Your task to perform on an android device: Search for dell xps on ebay.com, select the first entry, add it to the cart, then select checkout. Image 0: 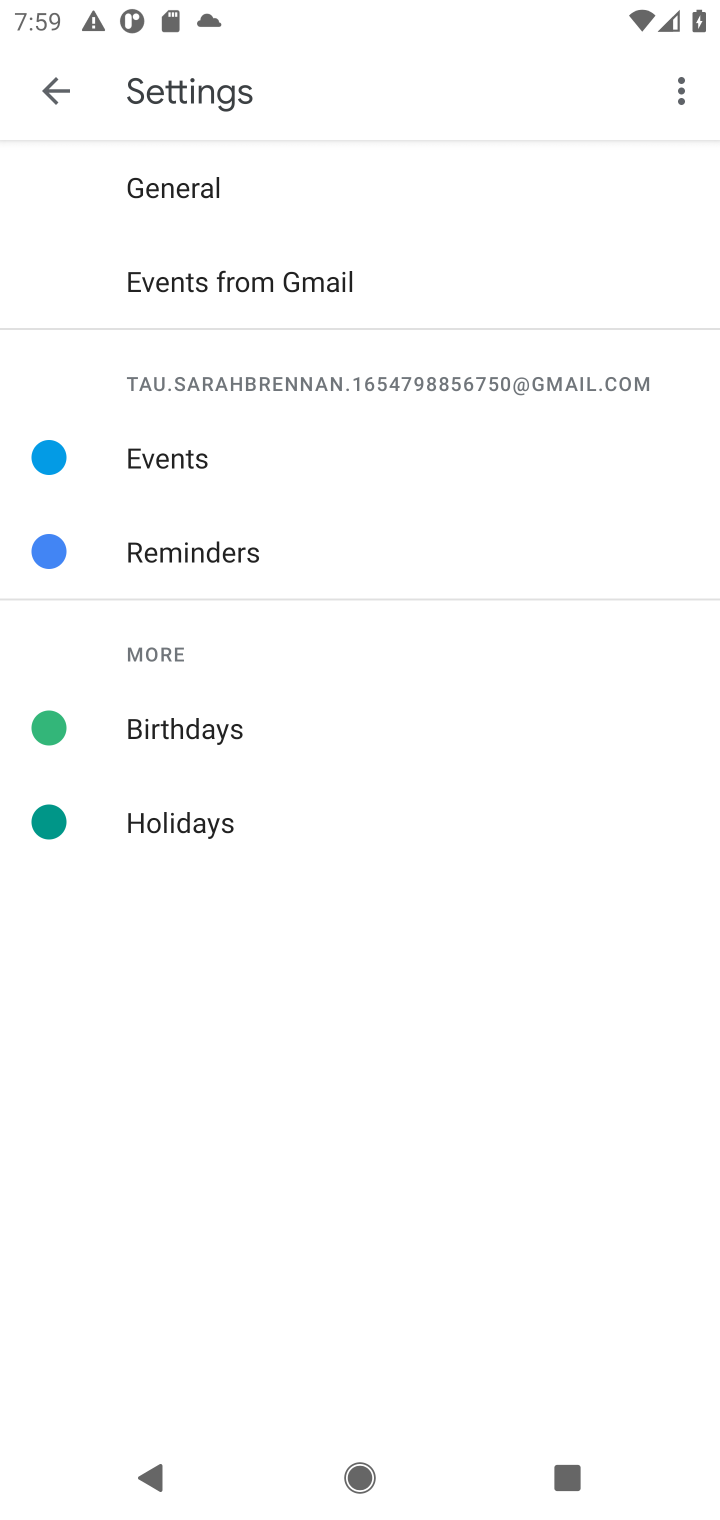
Step 0: press home button
Your task to perform on an android device: Search for dell xps on ebay.com, select the first entry, add it to the cart, then select checkout. Image 1: 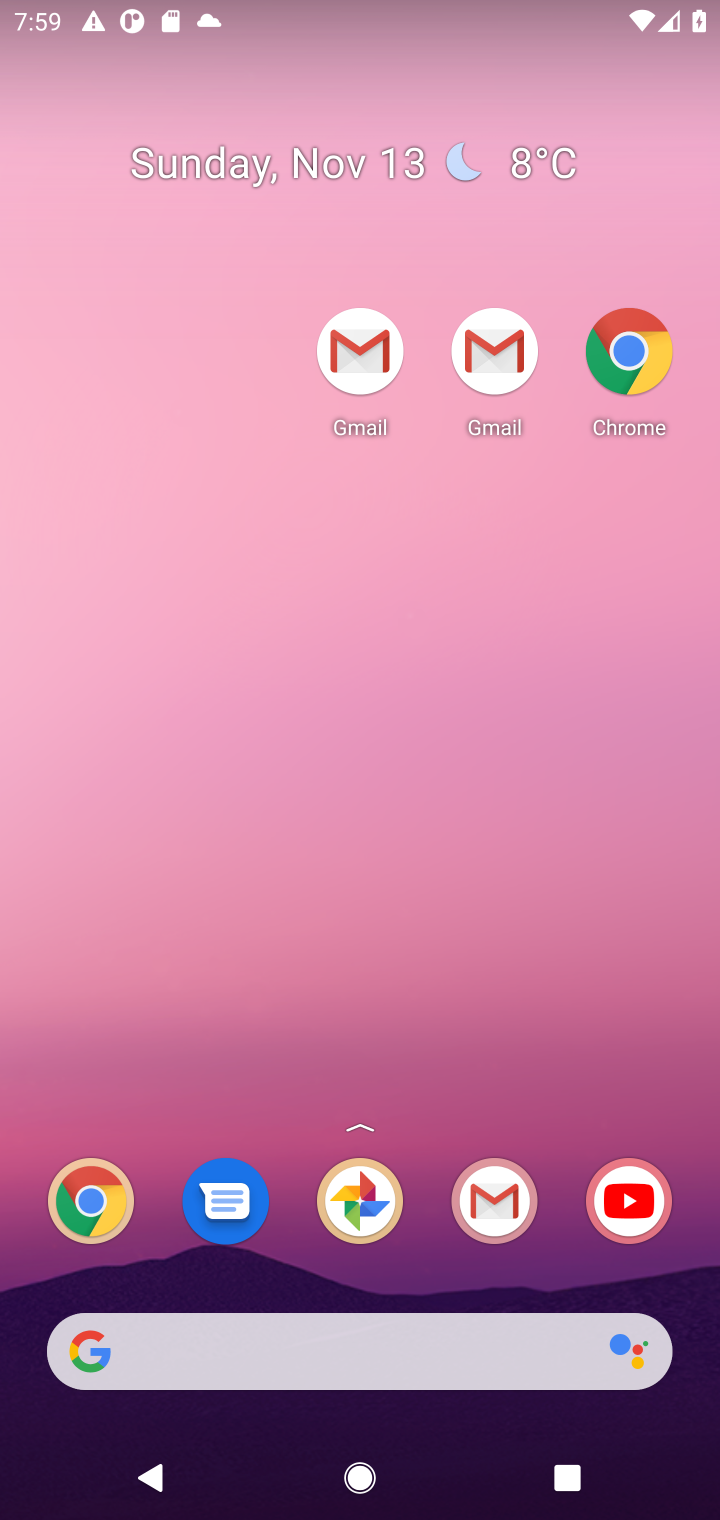
Step 1: drag from (413, 1157) to (168, 604)
Your task to perform on an android device: Search for dell xps on ebay.com, select the first entry, add it to the cart, then select checkout. Image 2: 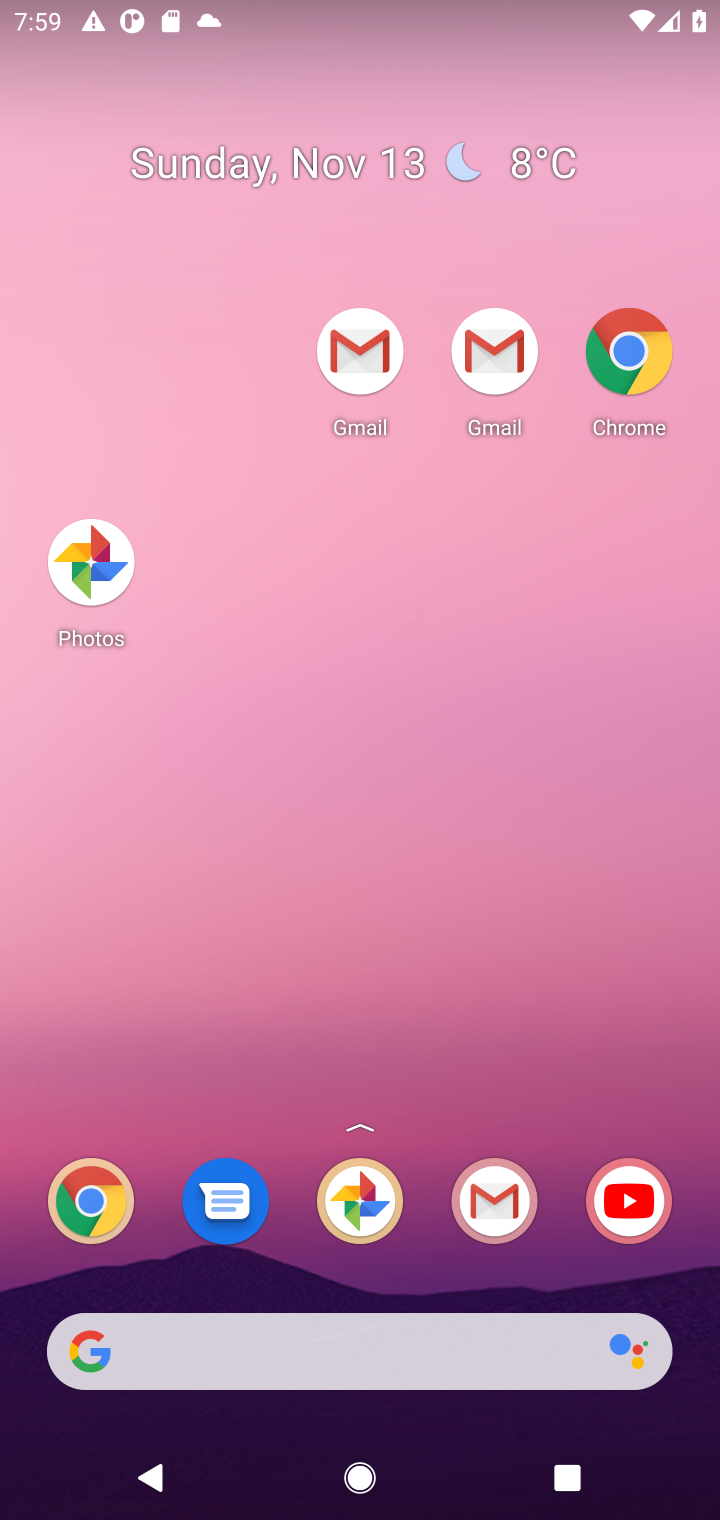
Step 2: drag from (463, 1112) to (253, 57)
Your task to perform on an android device: Search for dell xps on ebay.com, select the first entry, add it to the cart, then select checkout. Image 3: 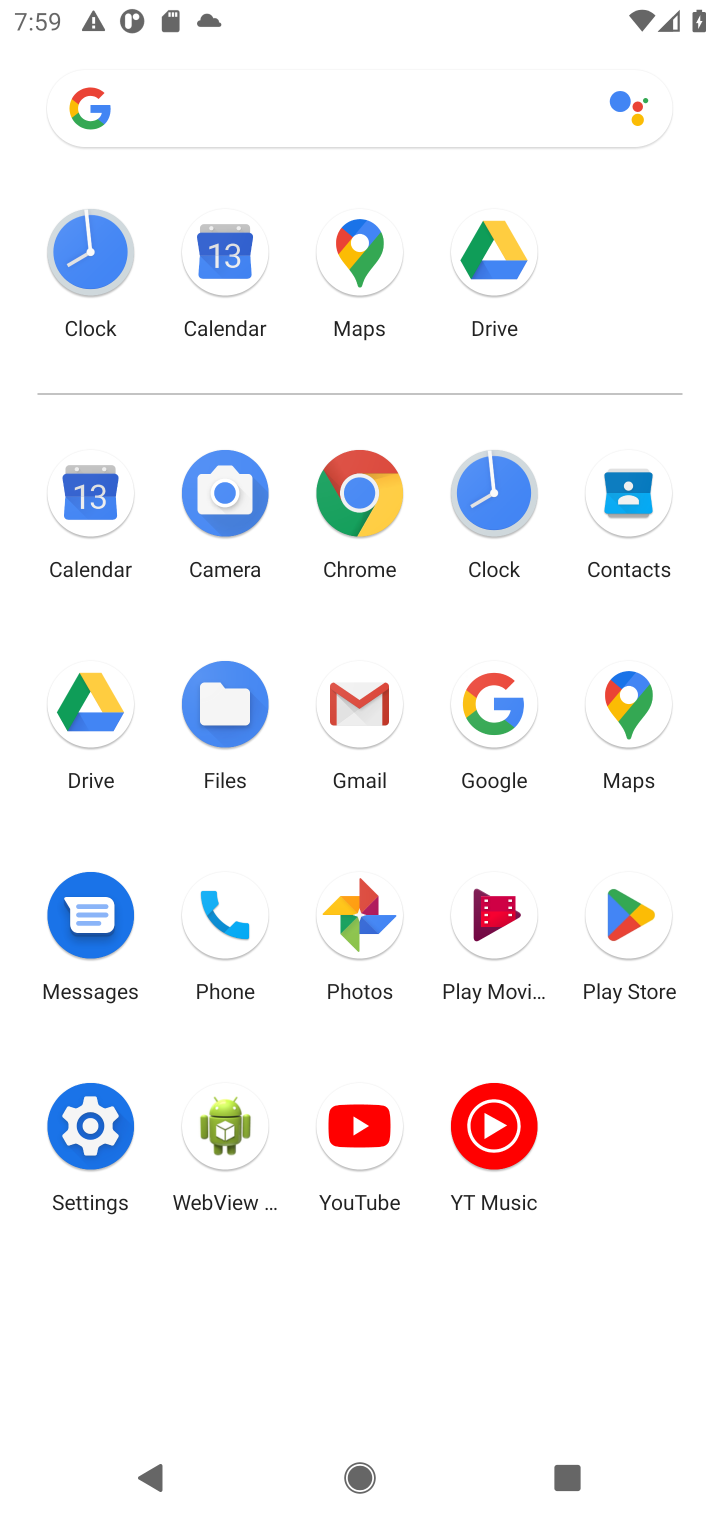
Step 3: click (352, 494)
Your task to perform on an android device: Search for dell xps on ebay.com, select the first entry, add it to the cart, then select checkout. Image 4: 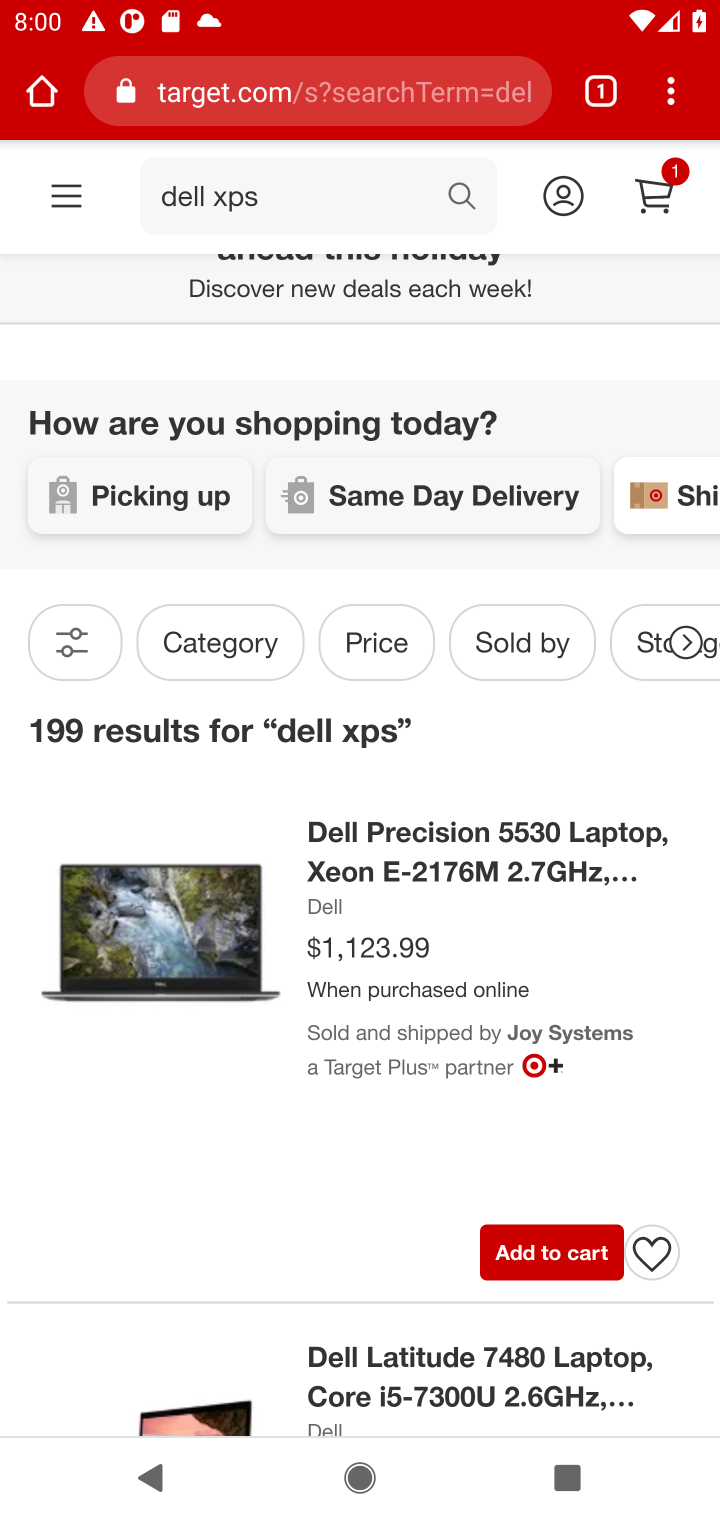
Step 4: click (416, 80)
Your task to perform on an android device: Search for dell xps on ebay.com, select the first entry, add it to the cart, then select checkout. Image 5: 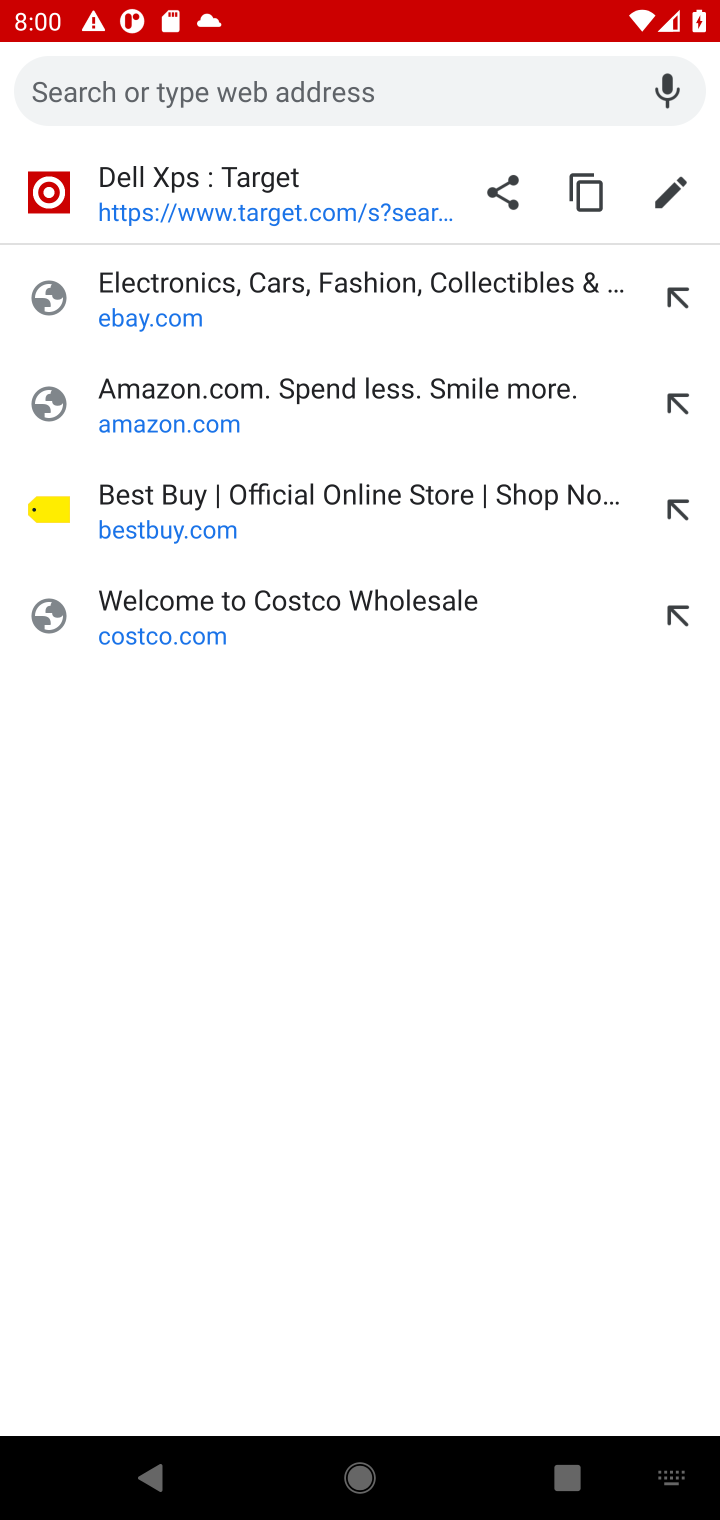
Step 5: type "ebay.com"
Your task to perform on an android device: Search for dell xps on ebay.com, select the first entry, add it to the cart, then select checkout. Image 6: 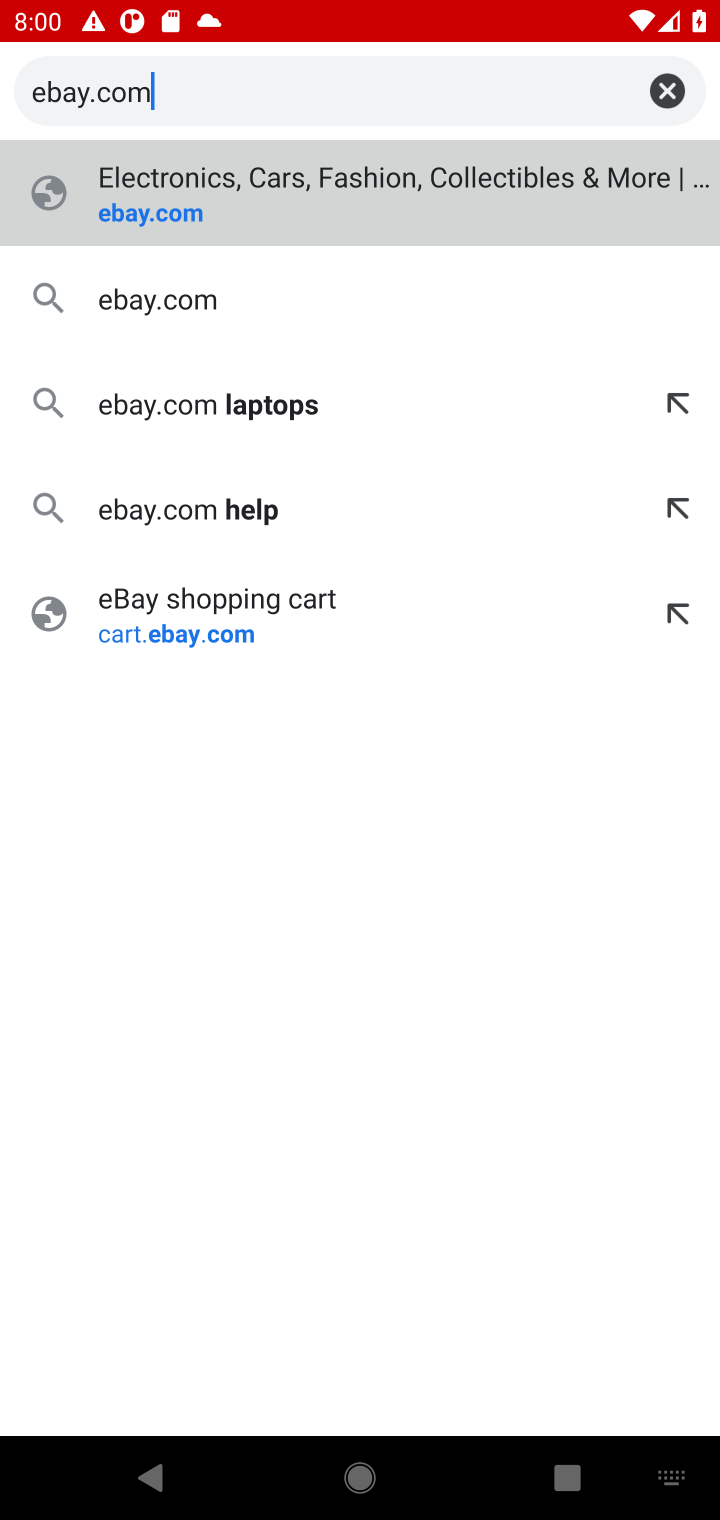
Step 6: press enter
Your task to perform on an android device: Search for dell xps on ebay.com, select the first entry, add it to the cart, then select checkout. Image 7: 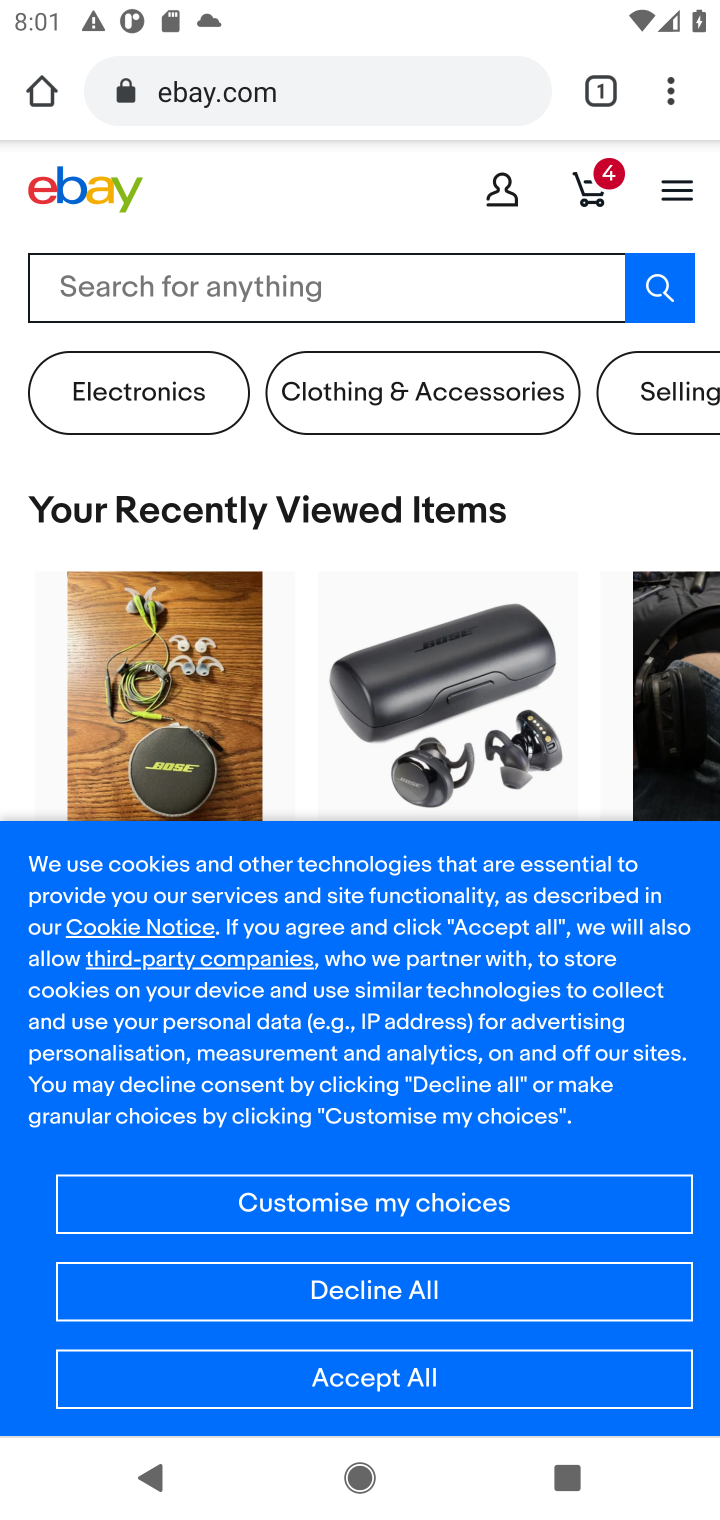
Step 7: click (254, 279)
Your task to perform on an android device: Search for dell xps on ebay.com, select the first entry, add it to the cart, then select checkout. Image 8: 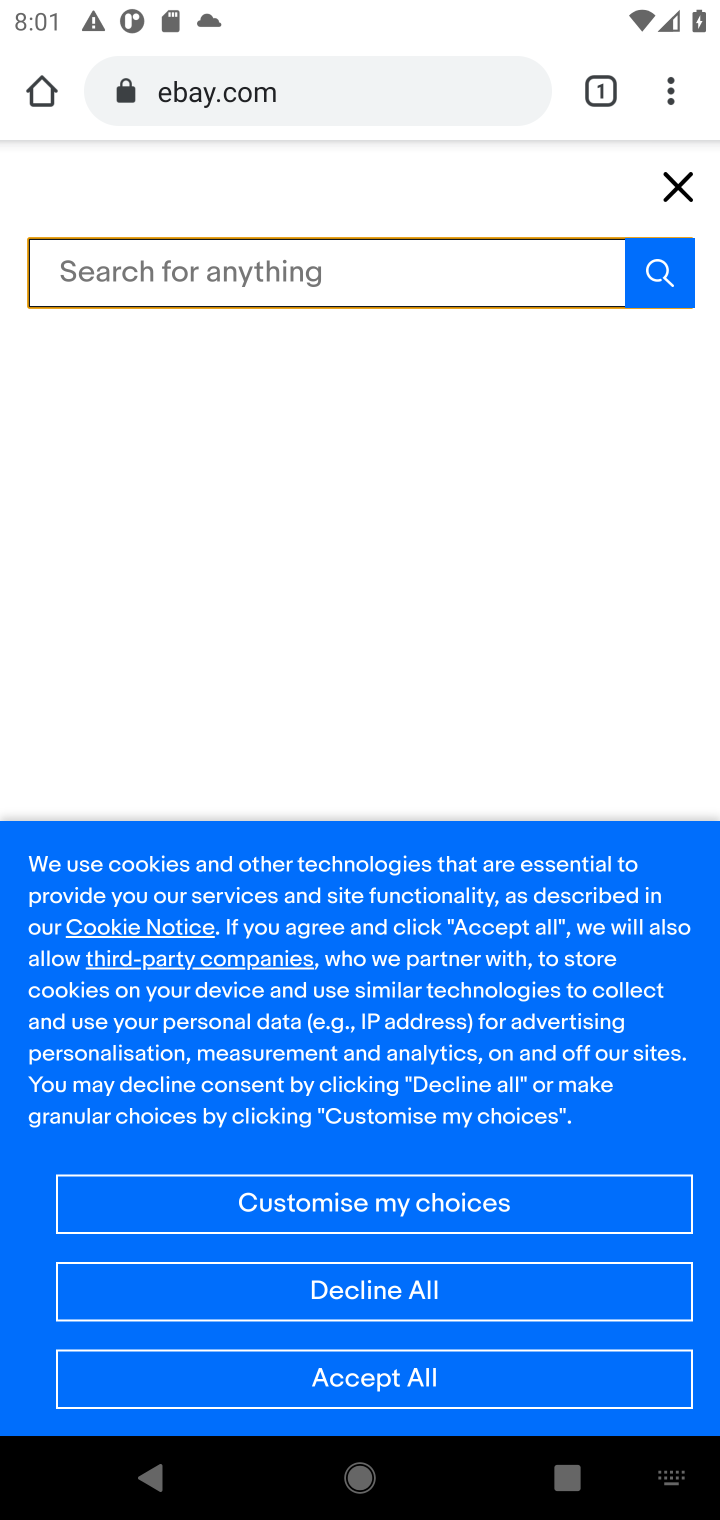
Step 8: type "dell xps"
Your task to perform on an android device: Search for dell xps on ebay.com, select the first entry, add it to the cart, then select checkout. Image 9: 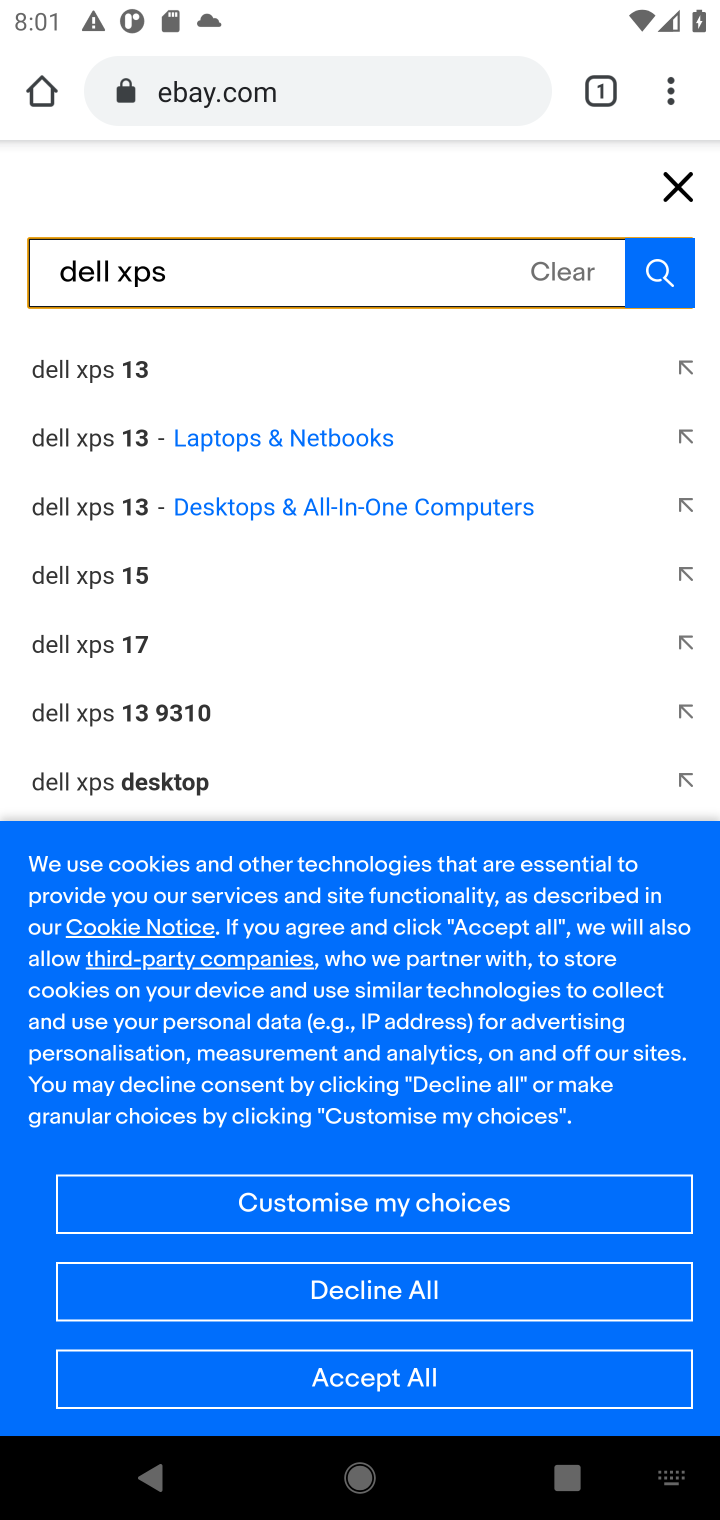
Step 9: press enter
Your task to perform on an android device: Search for dell xps on ebay.com, select the first entry, add it to the cart, then select checkout. Image 10: 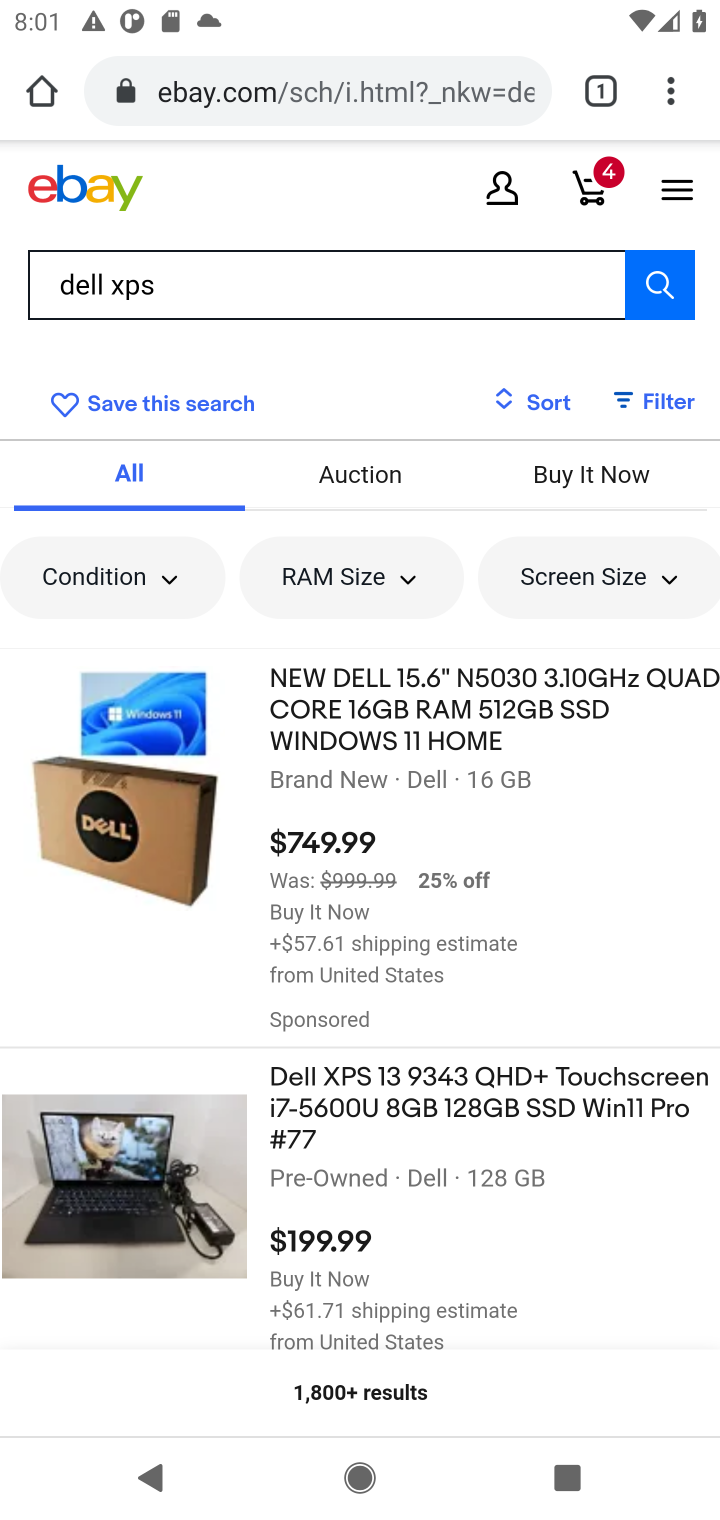
Step 10: click (334, 1082)
Your task to perform on an android device: Search for dell xps on ebay.com, select the first entry, add it to the cart, then select checkout. Image 11: 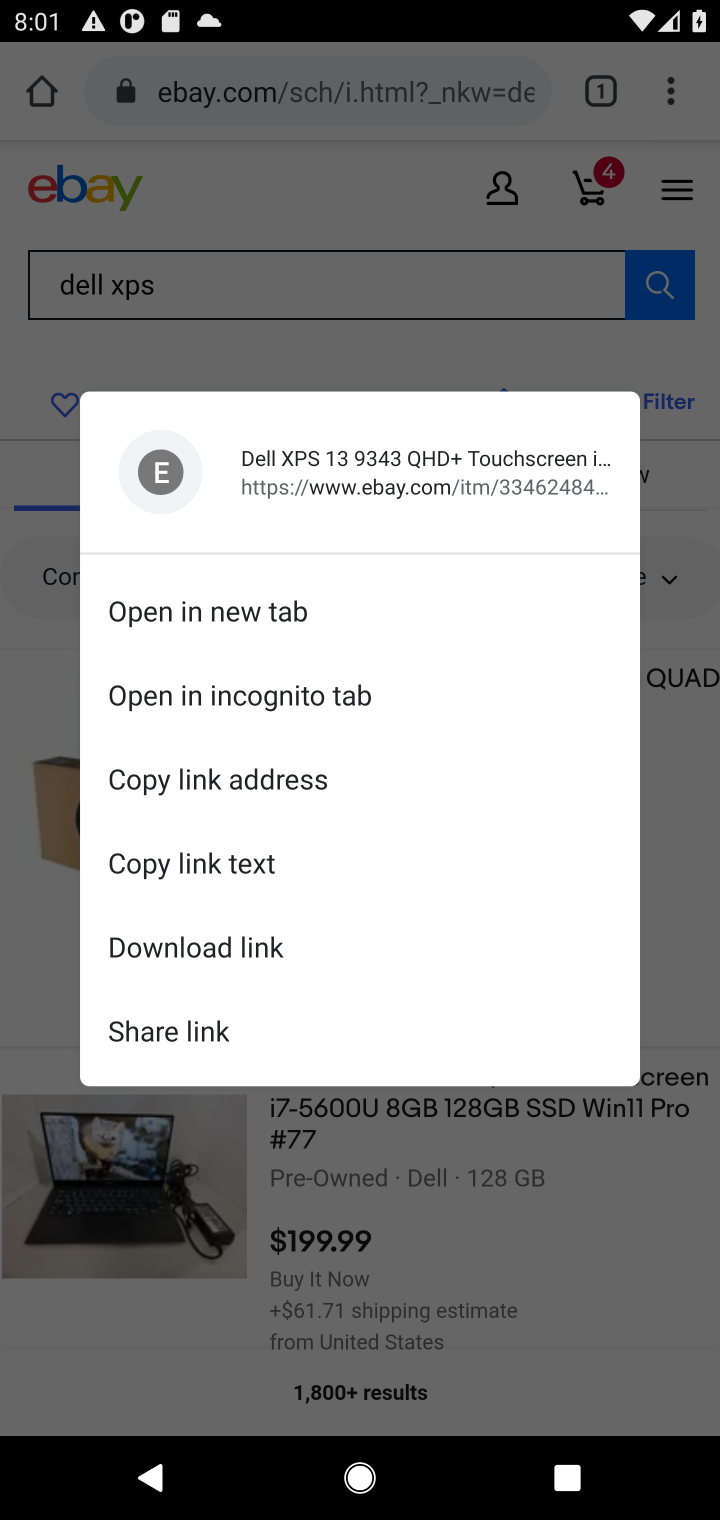
Step 11: click (275, 1165)
Your task to perform on an android device: Search for dell xps on ebay.com, select the first entry, add it to the cart, then select checkout. Image 12: 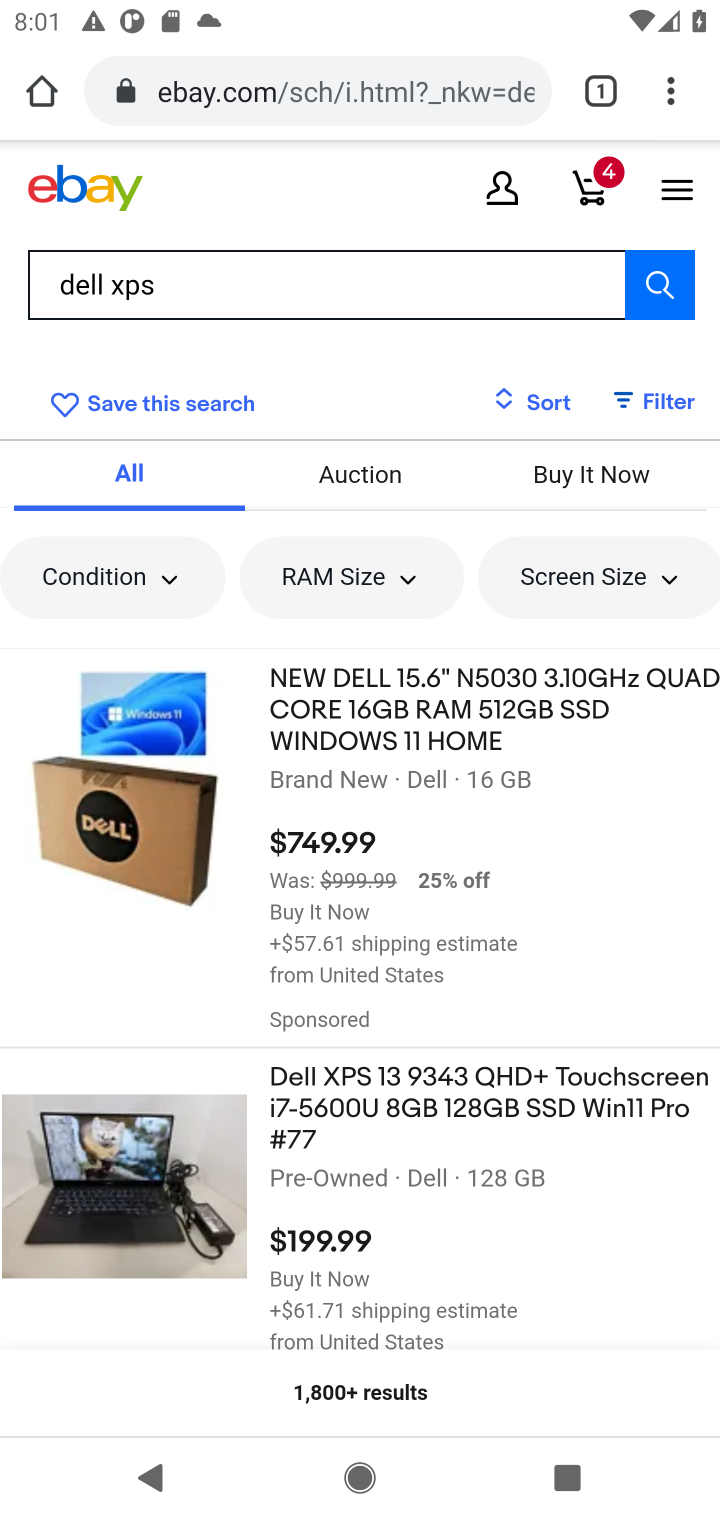
Step 12: drag from (489, 1264) to (493, 774)
Your task to perform on an android device: Search for dell xps on ebay.com, select the first entry, add it to the cart, then select checkout. Image 13: 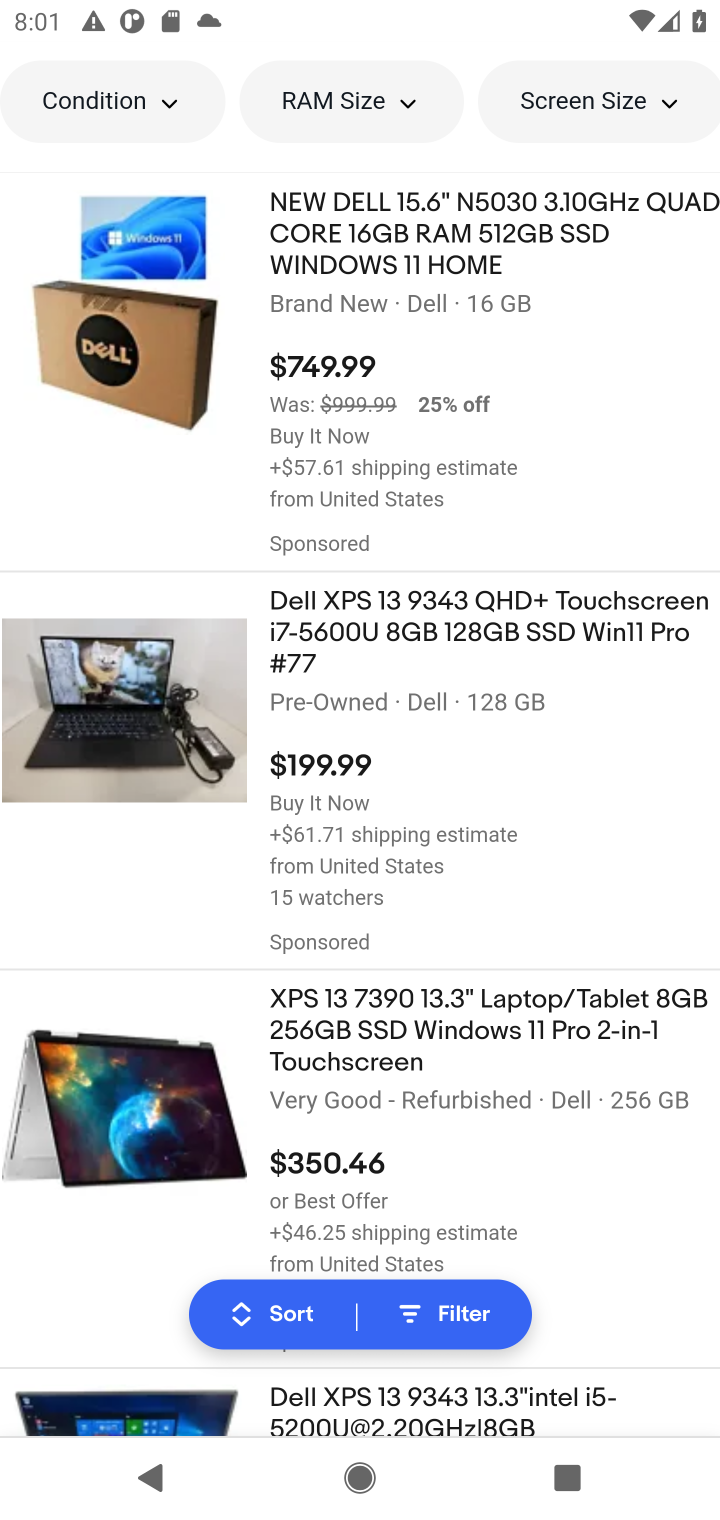
Step 13: drag from (608, 1128) to (563, 271)
Your task to perform on an android device: Search for dell xps on ebay.com, select the first entry, add it to the cart, then select checkout. Image 14: 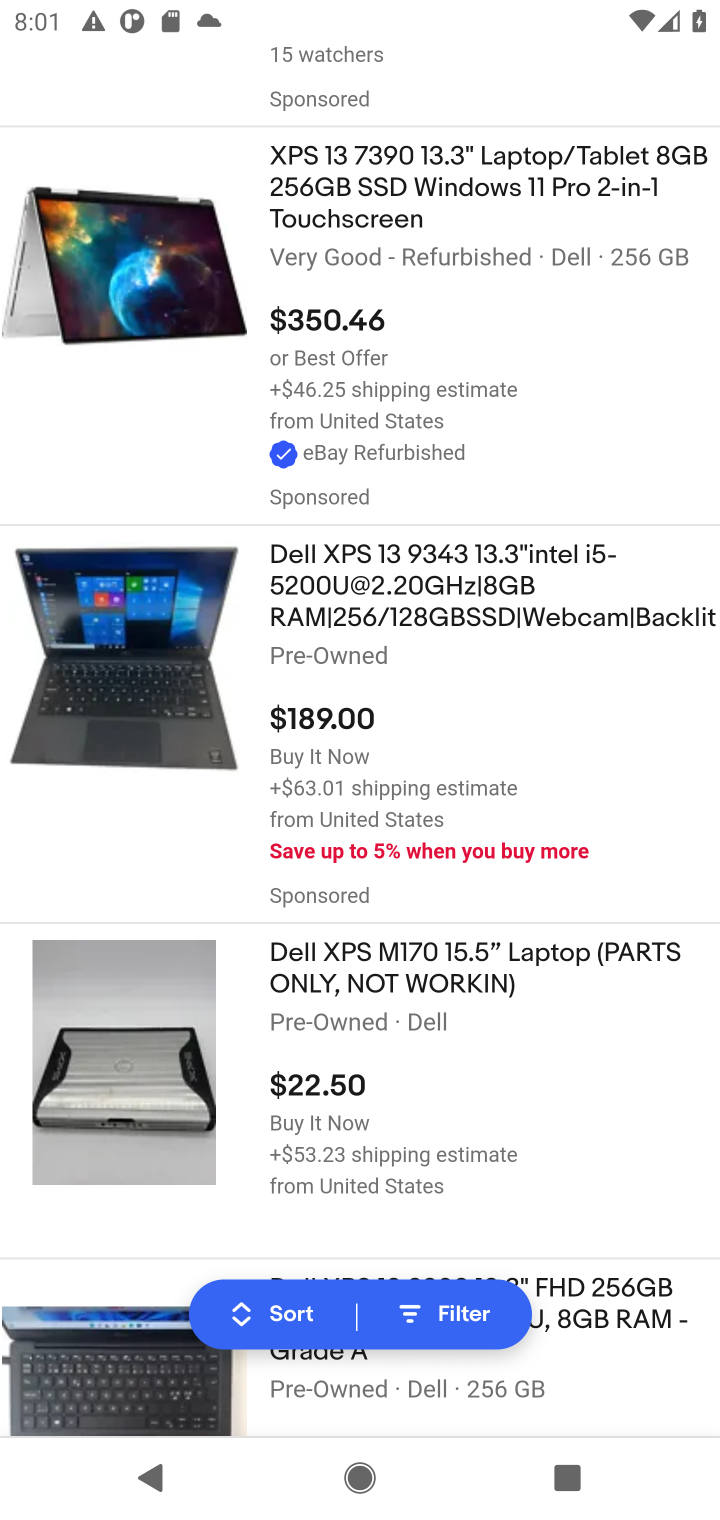
Step 14: click (461, 960)
Your task to perform on an android device: Search for dell xps on ebay.com, select the first entry, add it to the cart, then select checkout. Image 15: 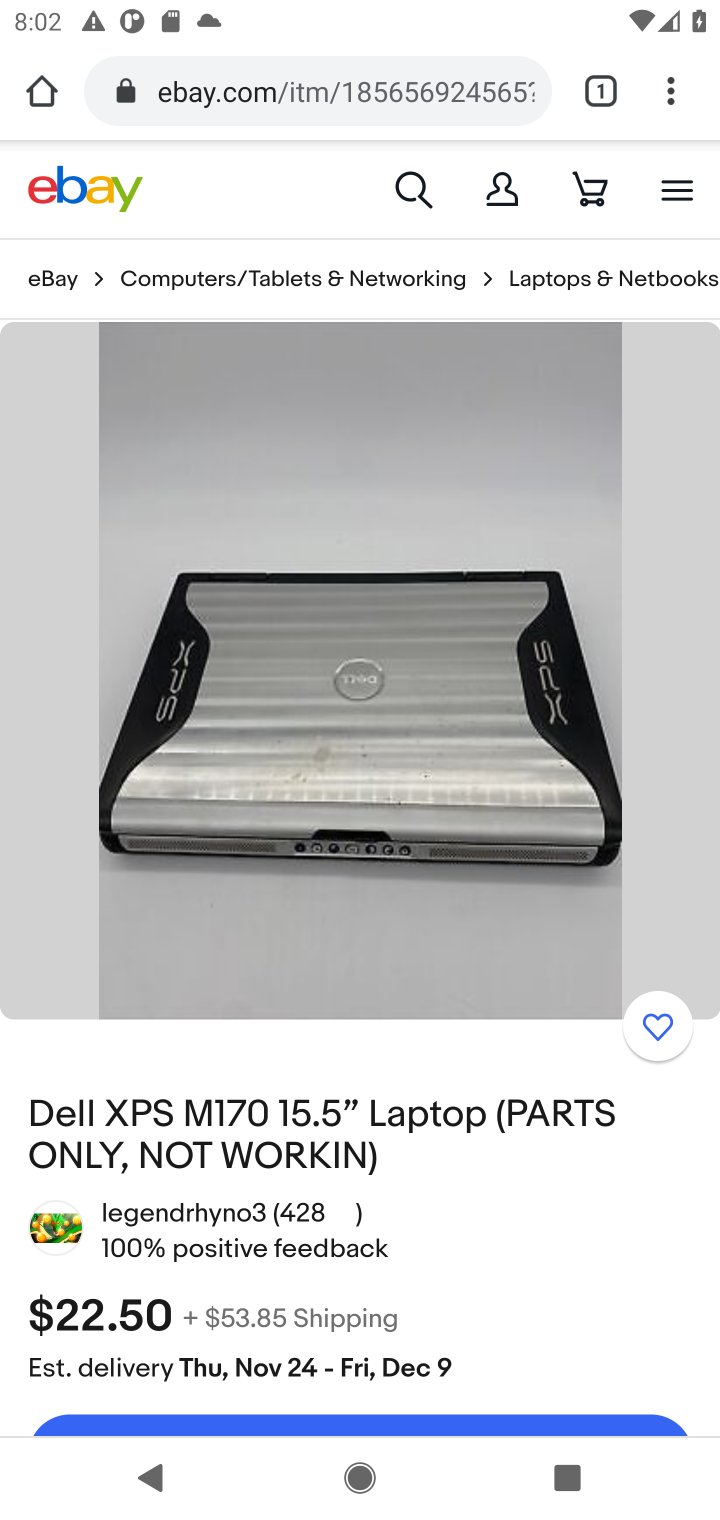
Step 15: drag from (493, 1428) to (224, 424)
Your task to perform on an android device: Search for dell xps on ebay.com, select the first entry, add it to the cart, then select checkout. Image 16: 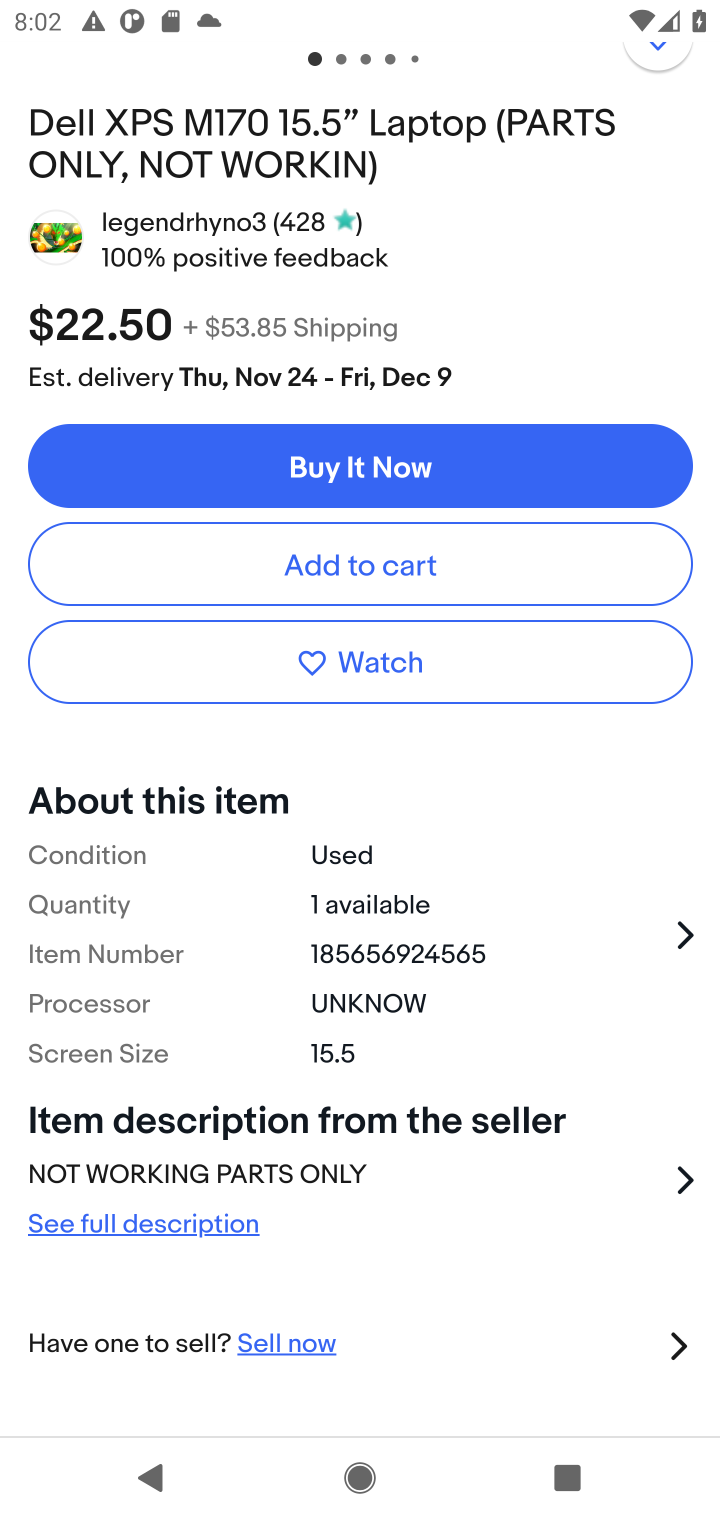
Step 16: click (392, 577)
Your task to perform on an android device: Search for dell xps on ebay.com, select the first entry, add it to the cart, then select checkout. Image 17: 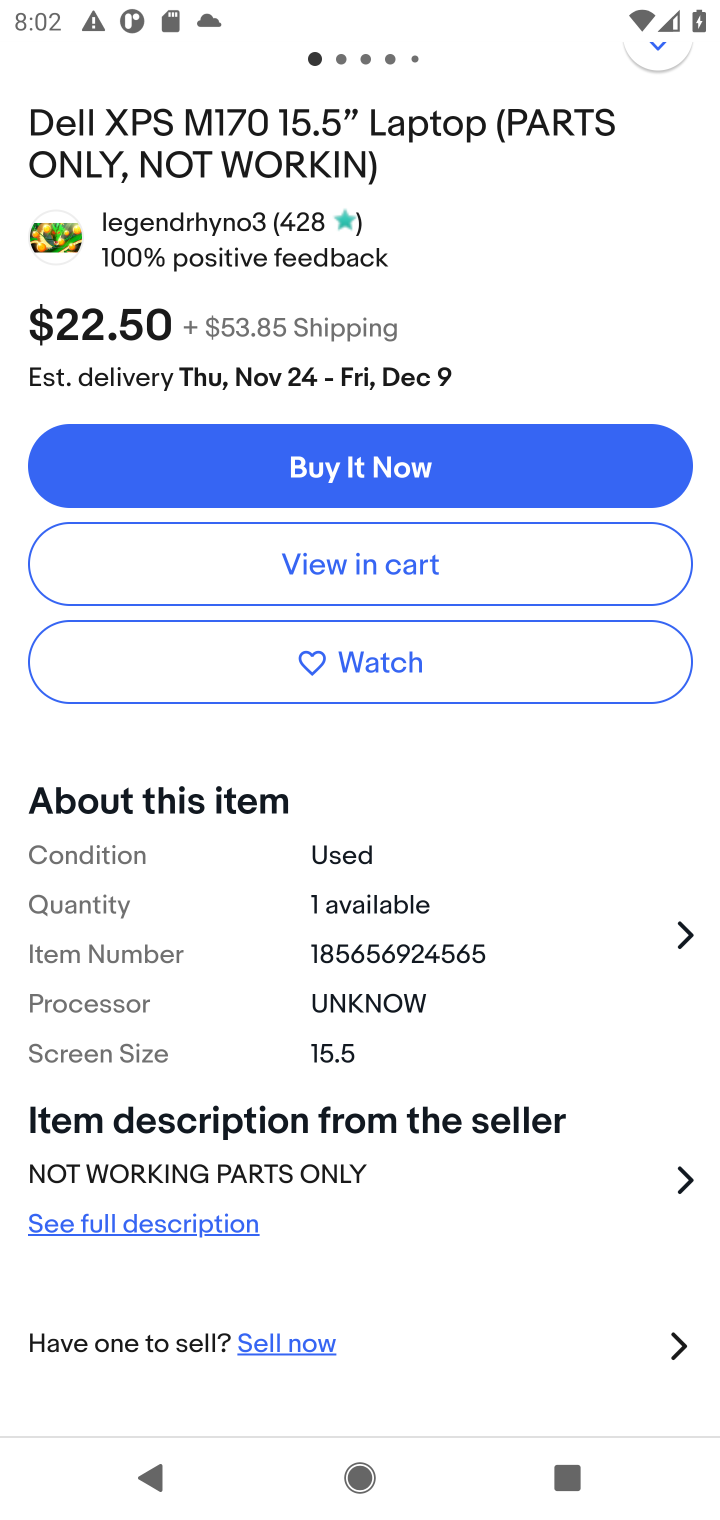
Step 17: click (538, 568)
Your task to perform on an android device: Search for dell xps on ebay.com, select the first entry, add it to the cart, then select checkout. Image 18: 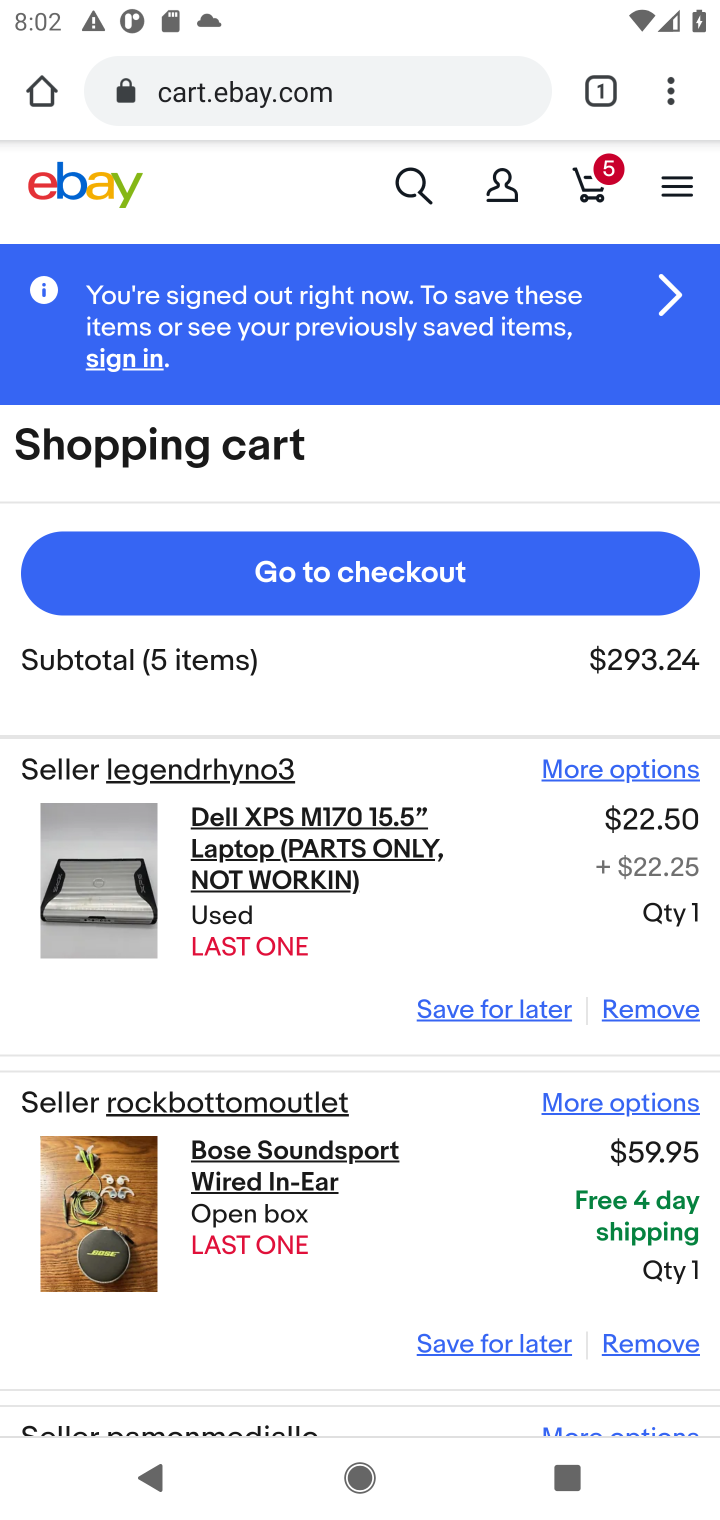
Step 18: click (531, 572)
Your task to perform on an android device: Search for dell xps on ebay.com, select the first entry, add it to the cart, then select checkout. Image 19: 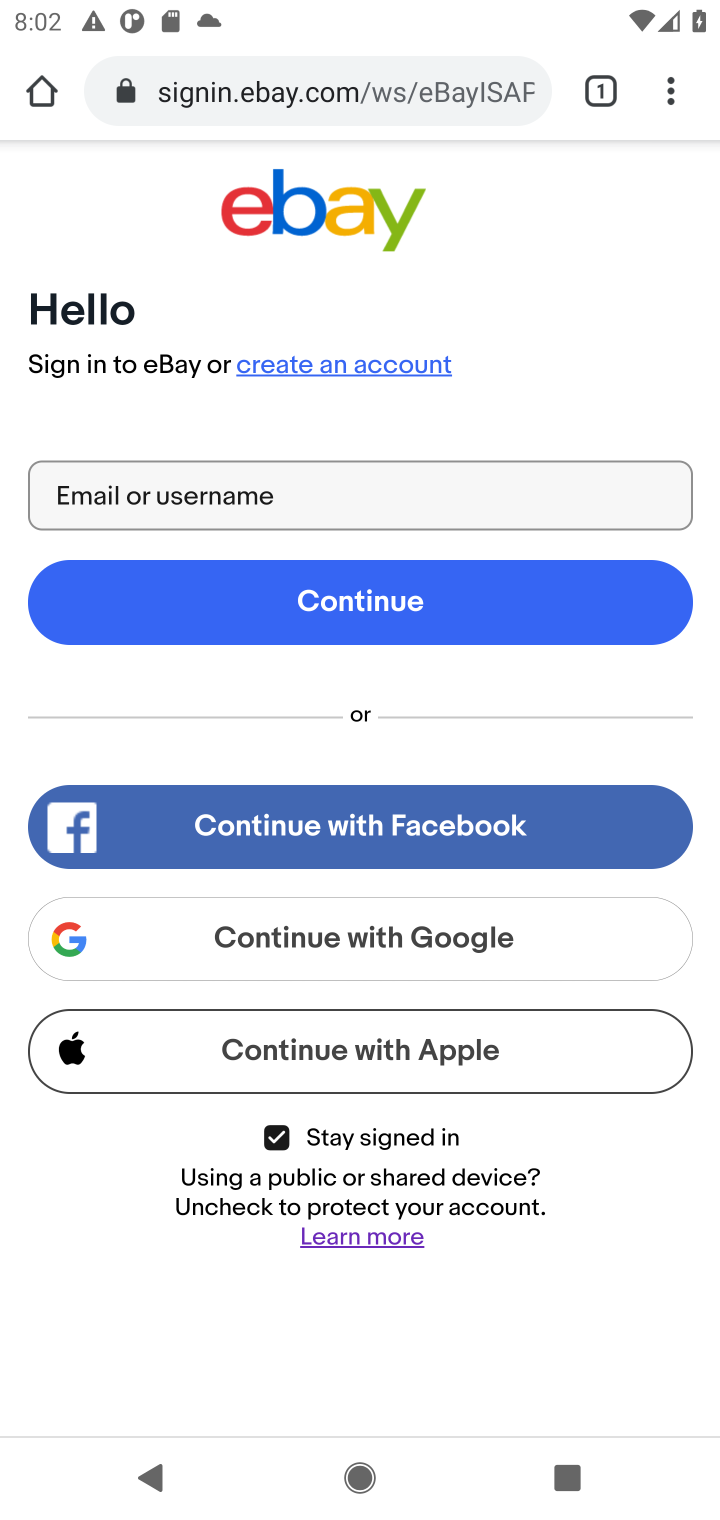
Step 19: task complete